Your task to perform on an android device: turn smart compose on in the gmail app Image 0: 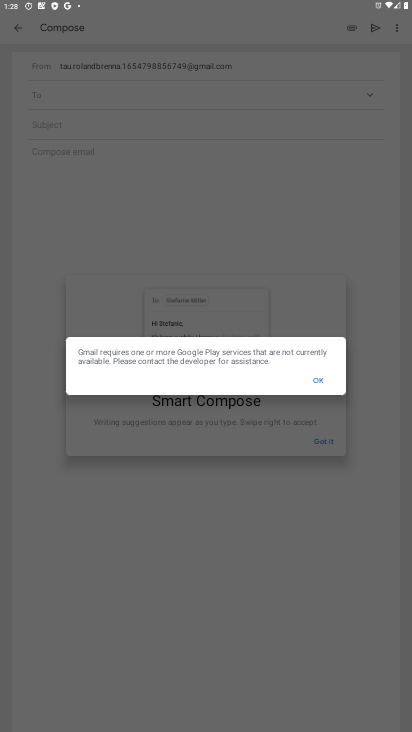
Step 0: press home button
Your task to perform on an android device: turn smart compose on in the gmail app Image 1: 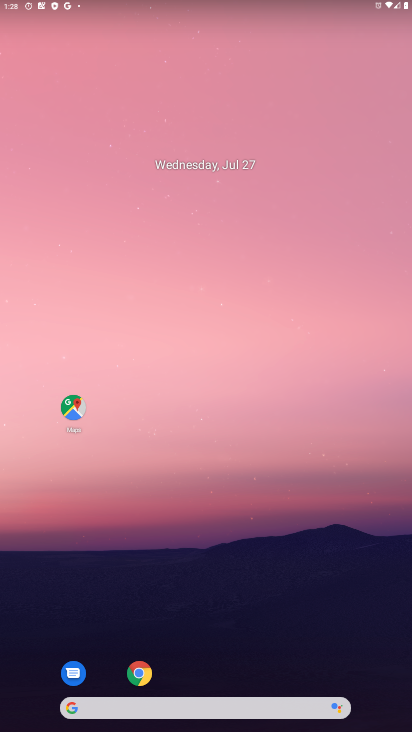
Step 1: drag from (233, 665) to (231, 27)
Your task to perform on an android device: turn smart compose on in the gmail app Image 2: 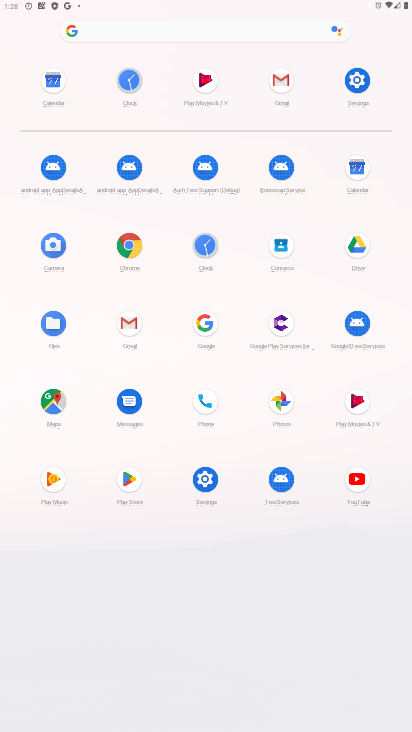
Step 2: click (281, 84)
Your task to perform on an android device: turn smart compose on in the gmail app Image 3: 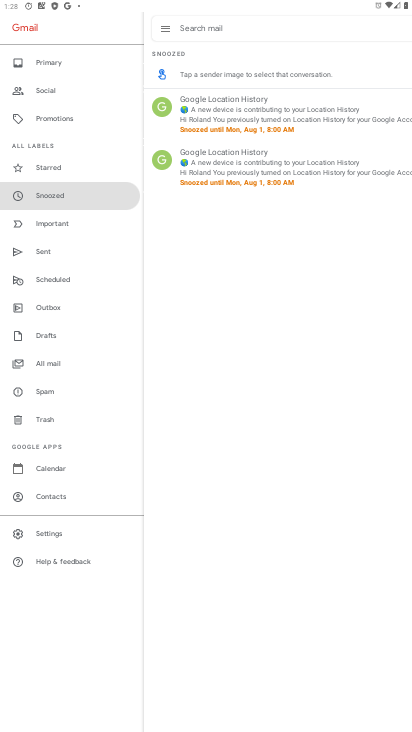
Step 3: click (56, 533)
Your task to perform on an android device: turn smart compose on in the gmail app Image 4: 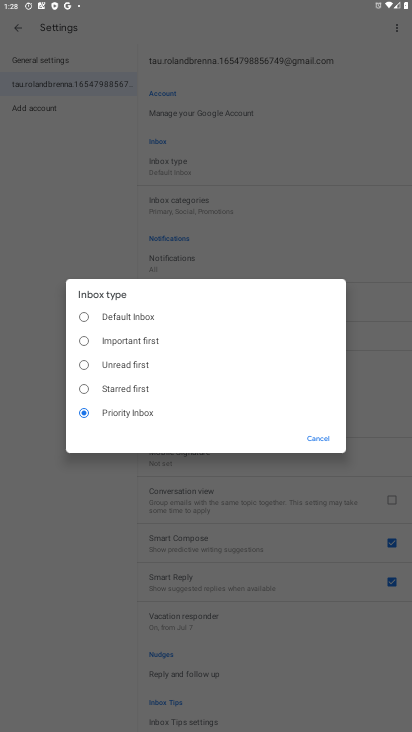
Step 4: click (317, 443)
Your task to perform on an android device: turn smart compose on in the gmail app Image 5: 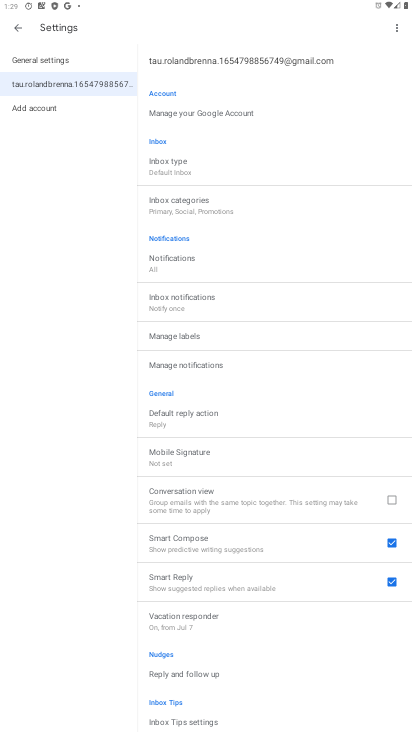
Step 5: task complete